Your task to perform on an android device: change keyboard looks Image 0: 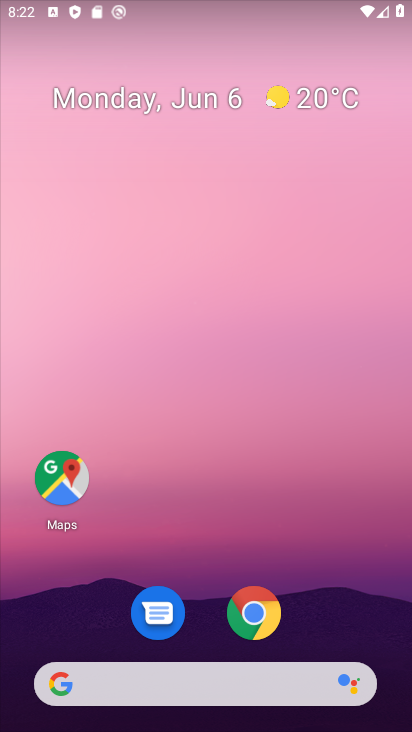
Step 0: drag from (400, 706) to (346, 142)
Your task to perform on an android device: change keyboard looks Image 1: 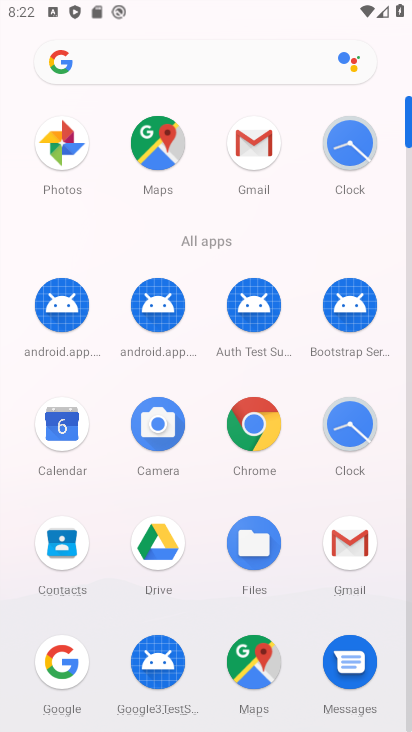
Step 1: drag from (204, 591) to (203, 238)
Your task to perform on an android device: change keyboard looks Image 2: 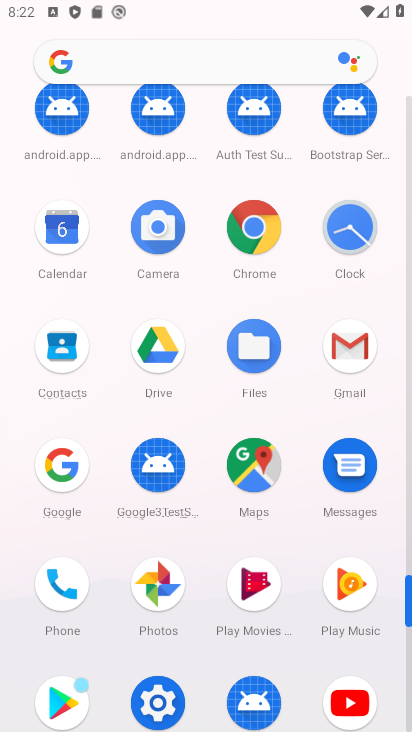
Step 2: click (152, 699)
Your task to perform on an android device: change keyboard looks Image 3: 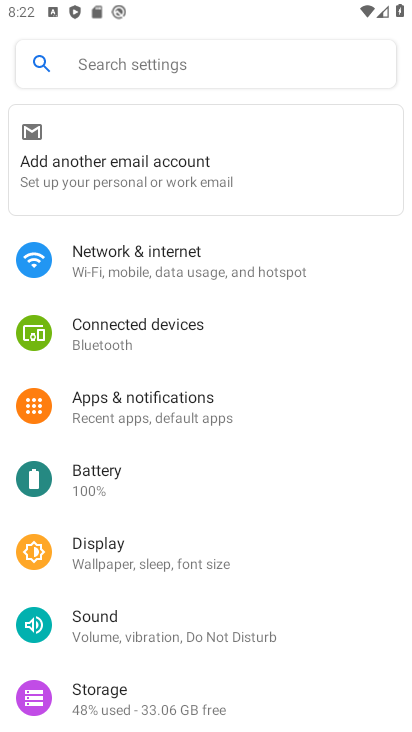
Step 3: drag from (276, 691) to (285, 214)
Your task to perform on an android device: change keyboard looks Image 4: 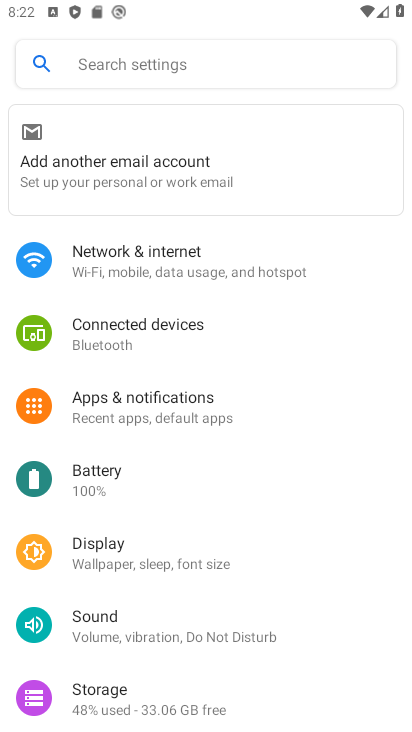
Step 4: drag from (315, 683) to (306, 212)
Your task to perform on an android device: change keyboard looks Image 5: 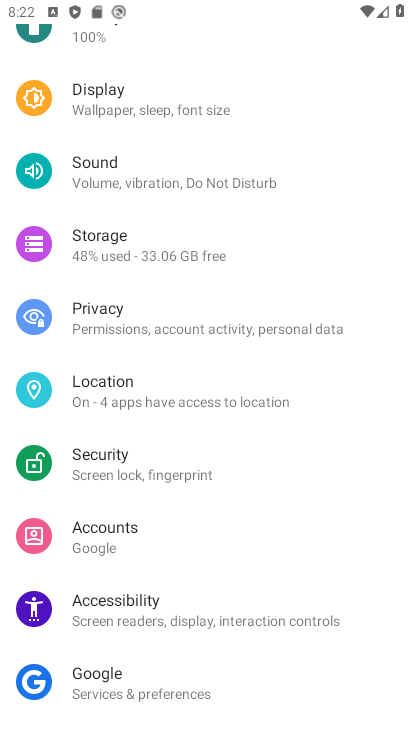
Step 5: drag from (335, 629) to (297, 189)
Your task to perform on an android device: change keyboard looks Image 6: 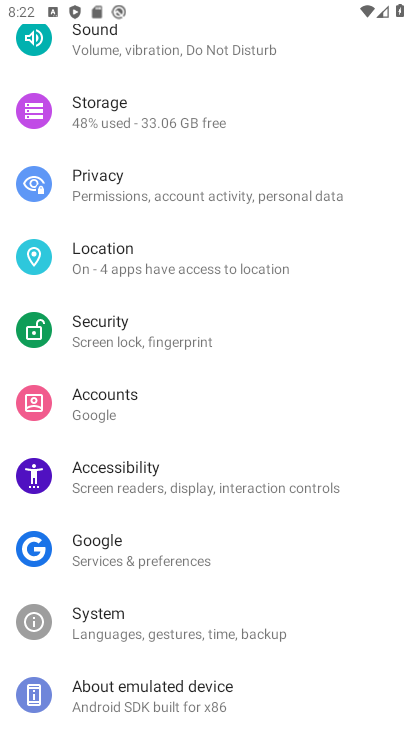
Step 6: click (99, 629)
Your task to perform on an android device: change keyboard looks Image 7: 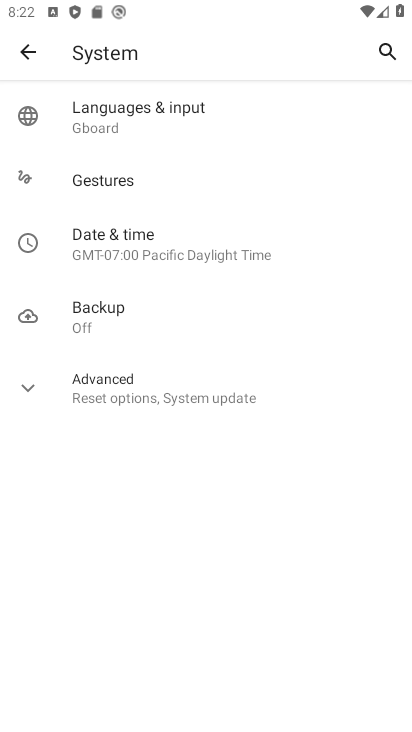
Step 7: click (121, 115)
Your task to perform on an android device: change keyboard looks Image 8: 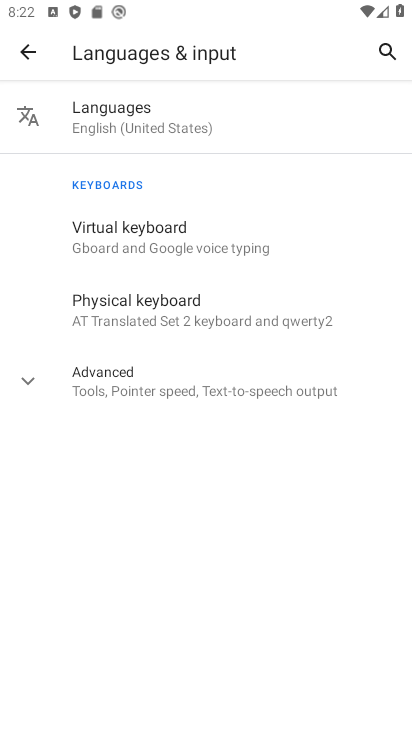
Step 8: click (119, 238)
Your task to perform on an android device: change keyboard looks Image 9: 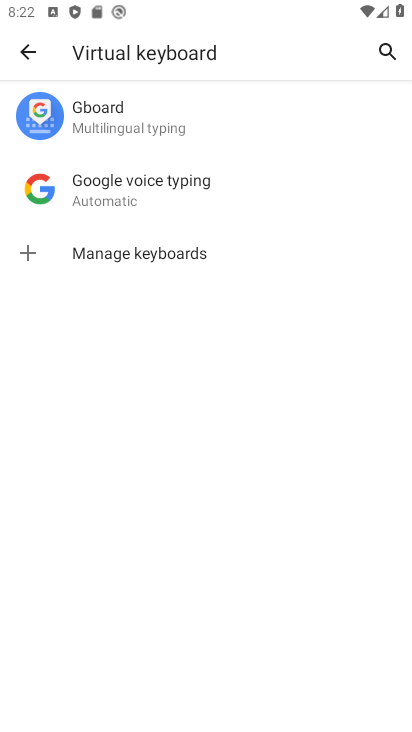
Step 9: click (99, 103)
Your task to perform on an android device: change keyboard looks Image 10: 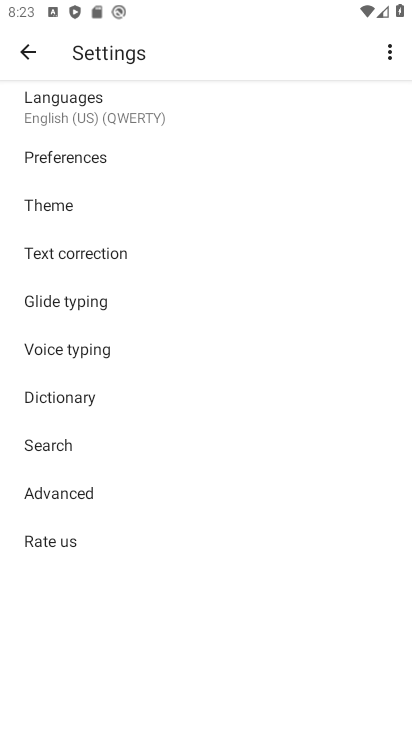
Step 10: click (45, 201)
Your task to perform on an android device: change keyboard looks Image 11: 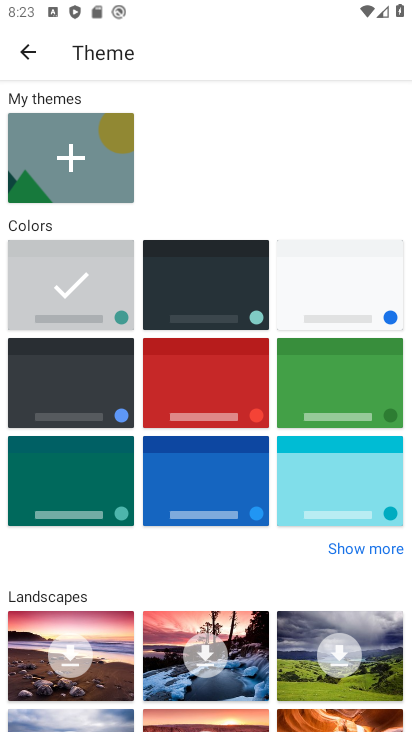
Step 11: click (216, 492)
Your task to perform on an android device: change keyboard looks Image 12: 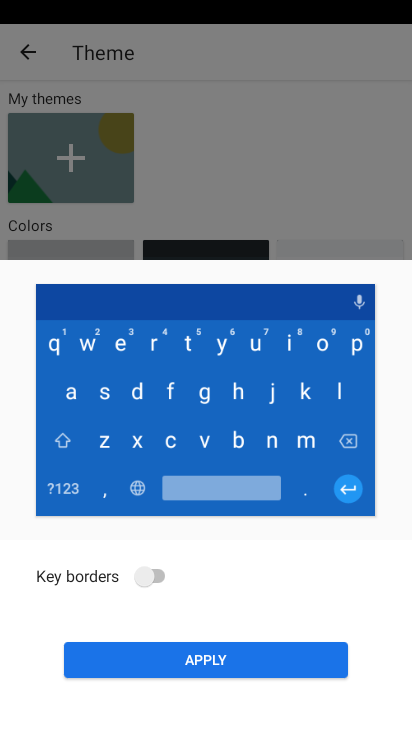
Step 12: click (161, 576)
Your task to perform on an android device: change keyboard looks Image 13: 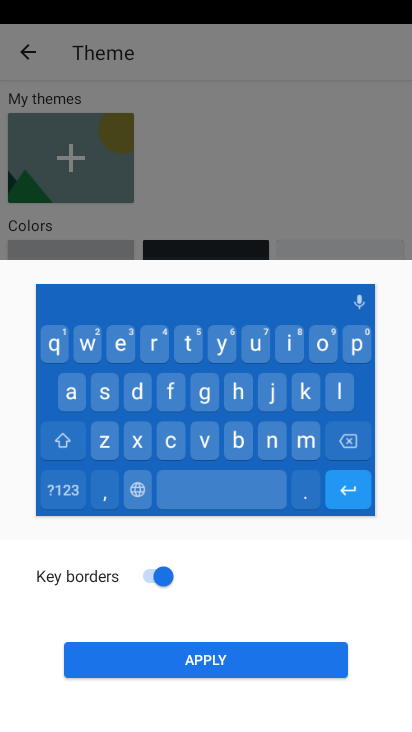
Step 13: click (237, 667)
Your task to perform on an android device: change keyboard looks Image 14: 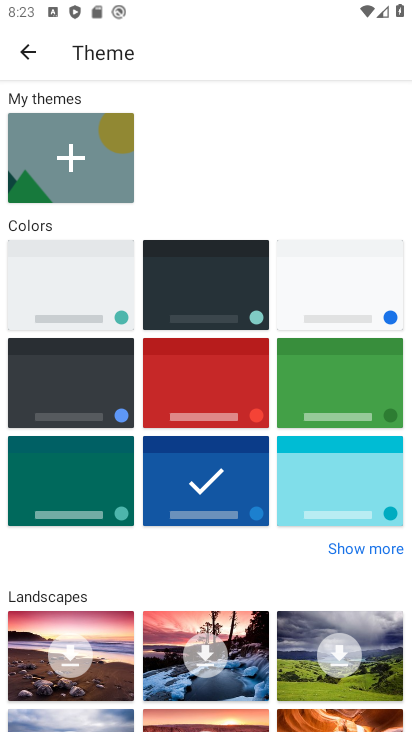
Step 14: task complete